Your task to perform on an android device: turn off picture-in-picture Image 0: 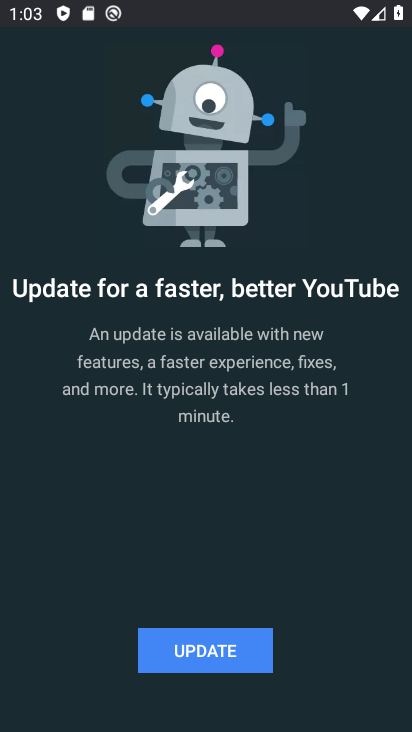
Step 0: press home button
Your task to perform on an android device: turn off picture-in-picture Image 1: 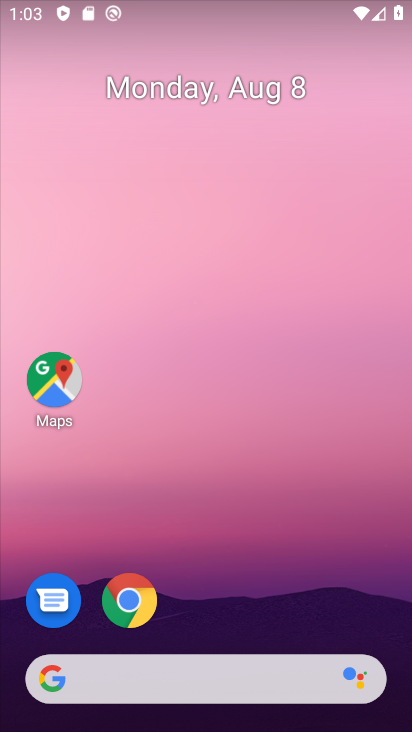
Step 1: drag from (267, 630) to (299, 294)
Your task to perform on an android device: turn off picture-in-picture Image 2: 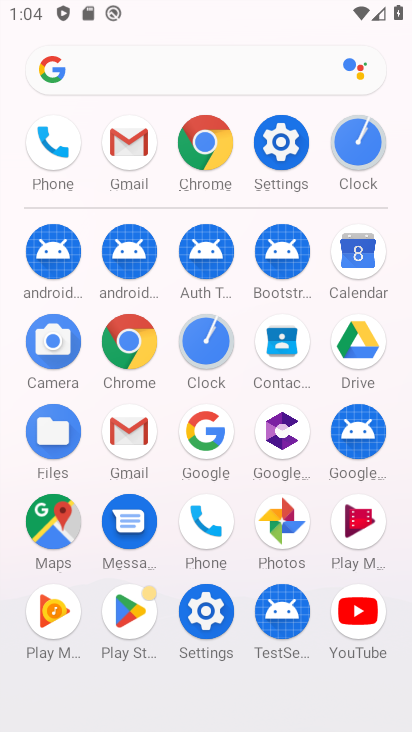
Step 2: click (126, 331)
Your task to perform on an android device: turn off picture-in-picture Image 3: 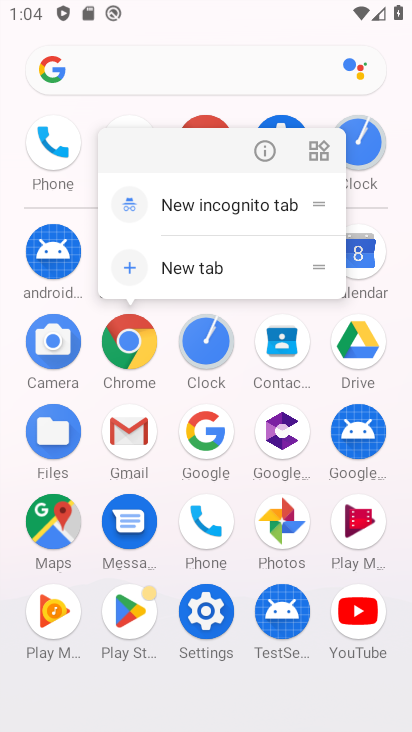
Step 3: click (126, 331)
Your task to perform on an android device: turn off picture-in-picture Image 4: 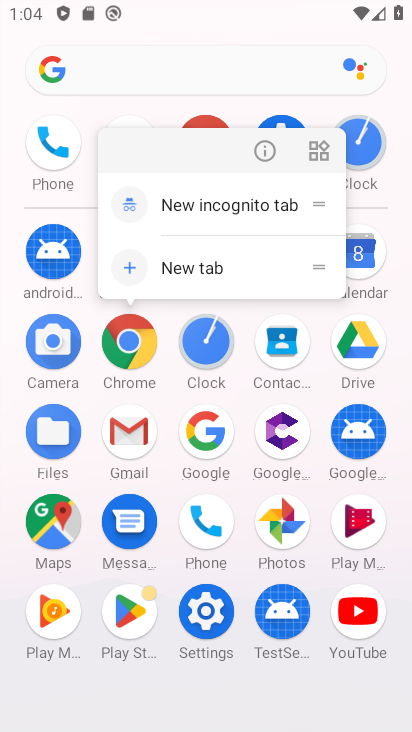
Step 4: click (277, 155)
Your task to perform on an android device: turn off picture-in-picture Image 5: 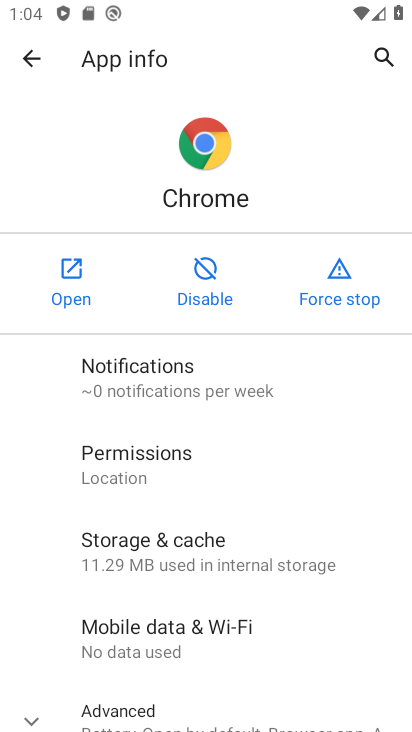
Step 5: drag from (147, 622) to (141, 84)
Your task to perform on an android device: turn off picture-in-picture Image 6: 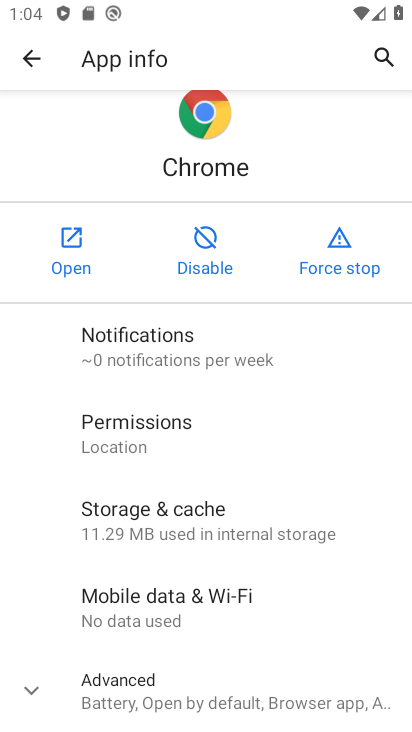
Step 6: click (137, 696)
Your task to perform on an android device: turn off picture-in-picture Image 7: 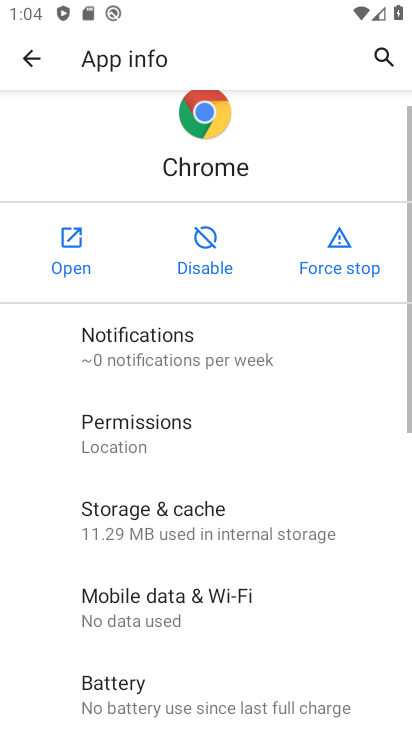
Step 7: drag from (242, 658) to (271, 217)
Your task to perform on an android device: turn off picture-in-picture Image 8: 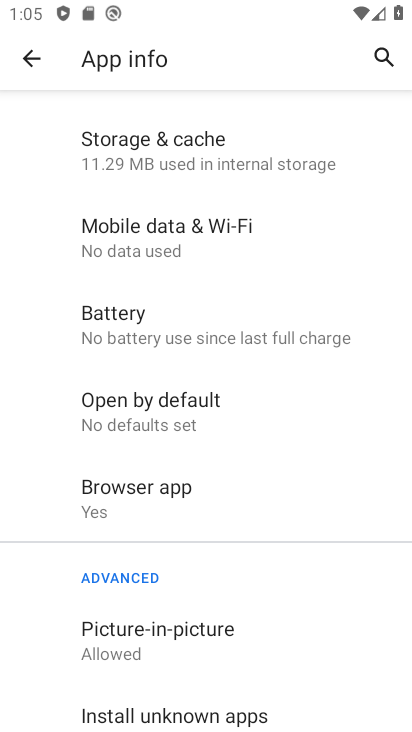
Step 8: drag from (217, 545) to (111, 126)
Your task to perform on an android device: turn off picture-in-picture Image 9: 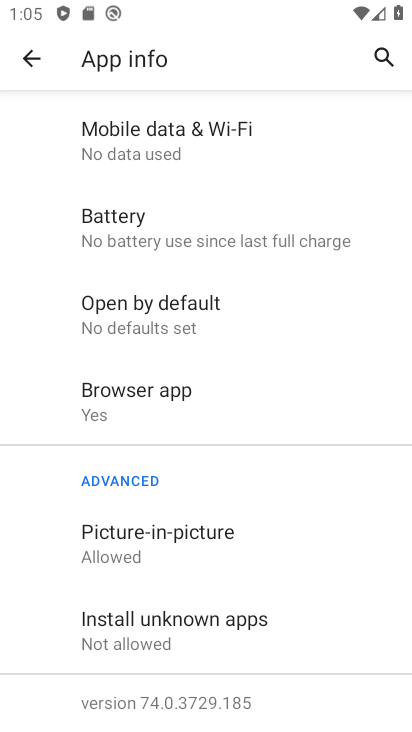
Step 9: click (183, 547)
Your task to perform on an android device: turn off picture-in-picture Image 10: 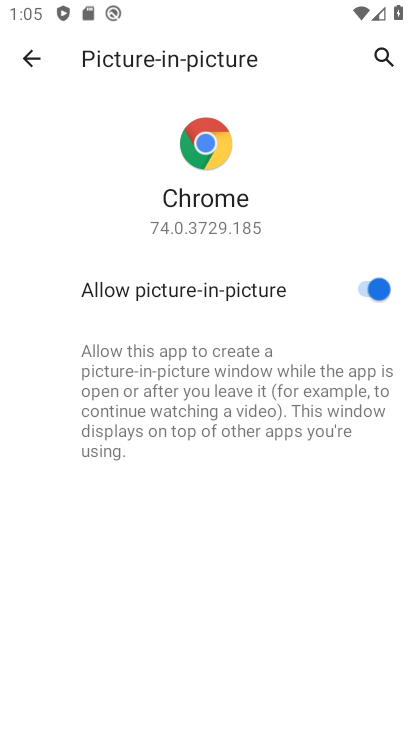
Step 10: click (347, 303)
Your task to perform on an android device: turn off picture-in-picture Image 11: 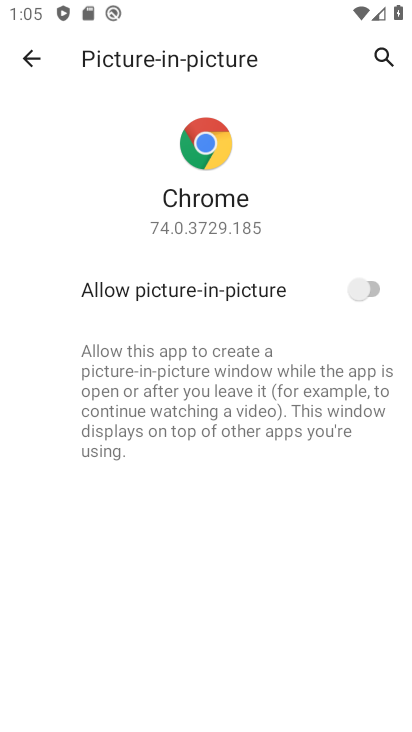
Step 11: task complete